Your task to perform on an android device: change the clock display to digital Image 0: 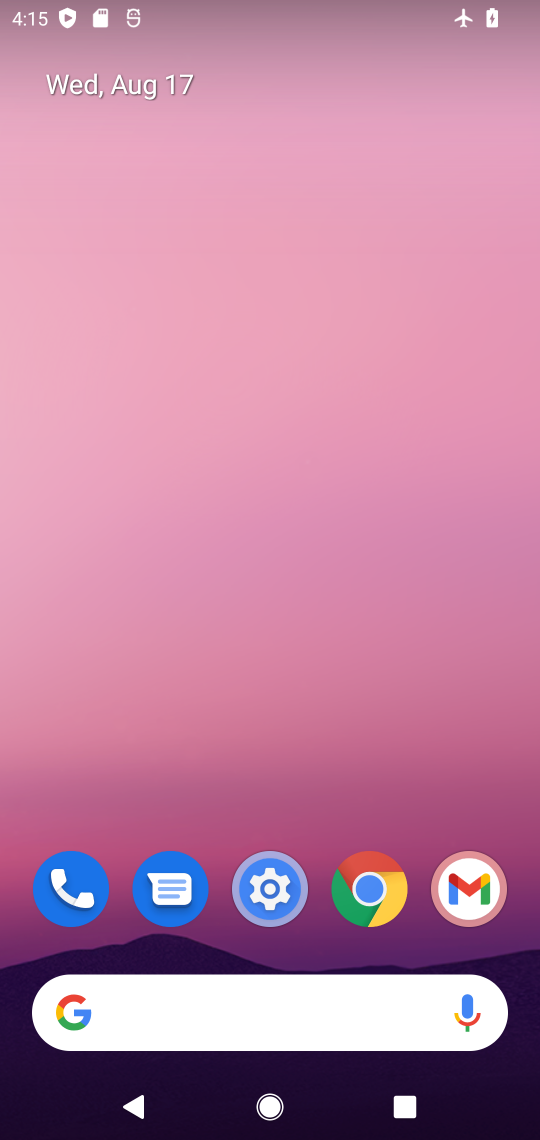
Step 0: drag from (283, 807) to (219, 158)
Your task to perform on an android device: change the clock display to digital Image 1: 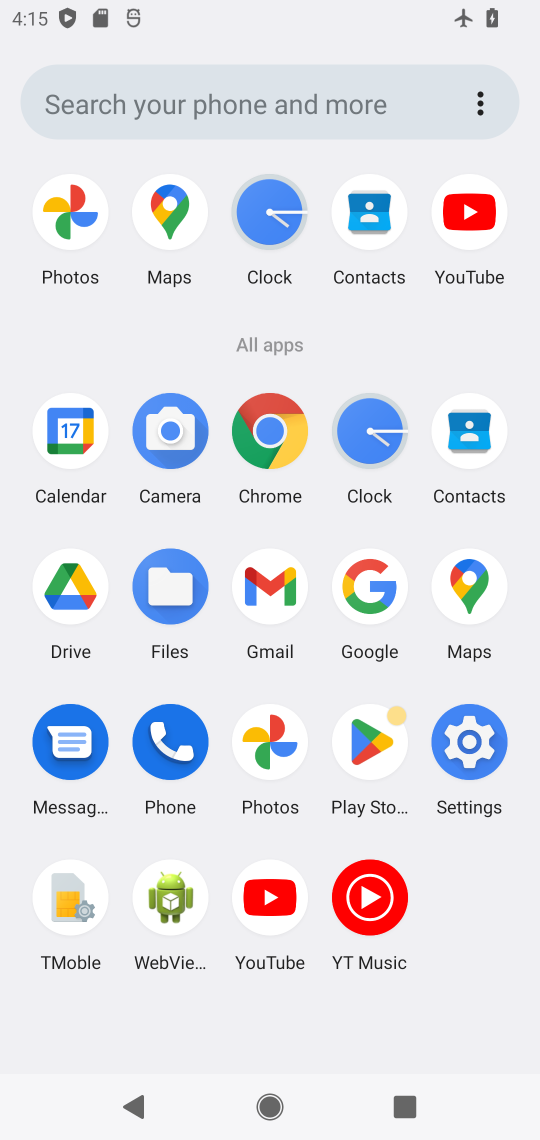
Step 1: click (378, 433)
Your task to perform on an android device: change the clock display to digital Image 2: 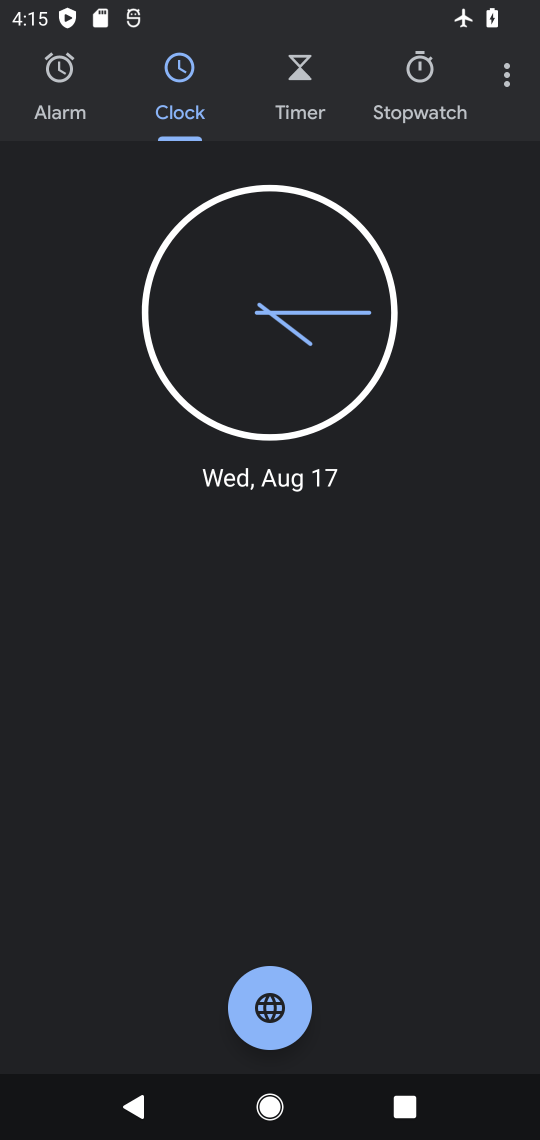
Step 2: click (502, 74)
Your task to perform on an android device: change the clock display to digital Image 3: 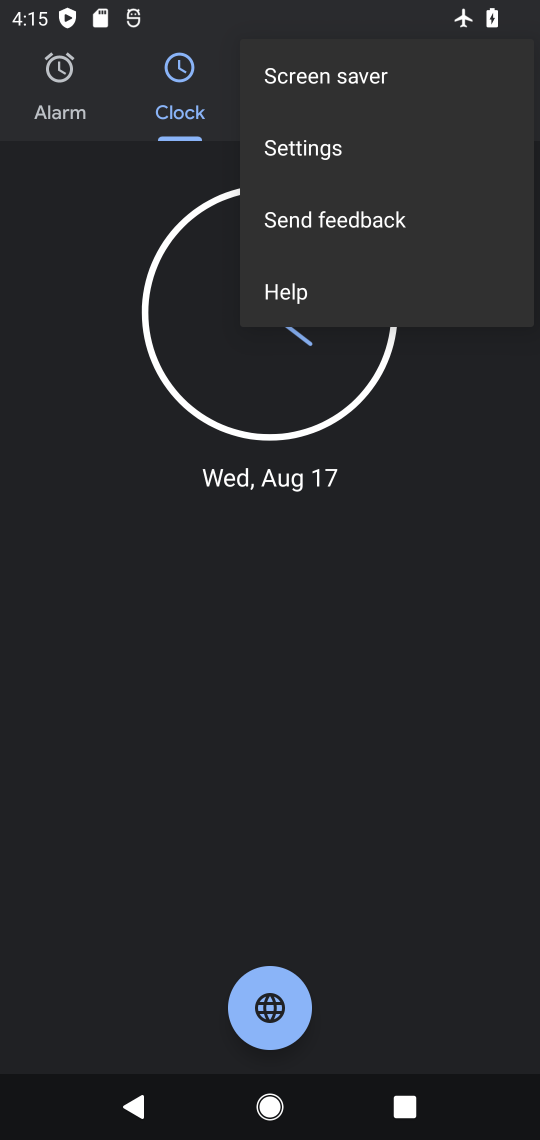
Step 3: click (326, 138)
Your task to perform on an android device: change the clock display to digital Image 4: 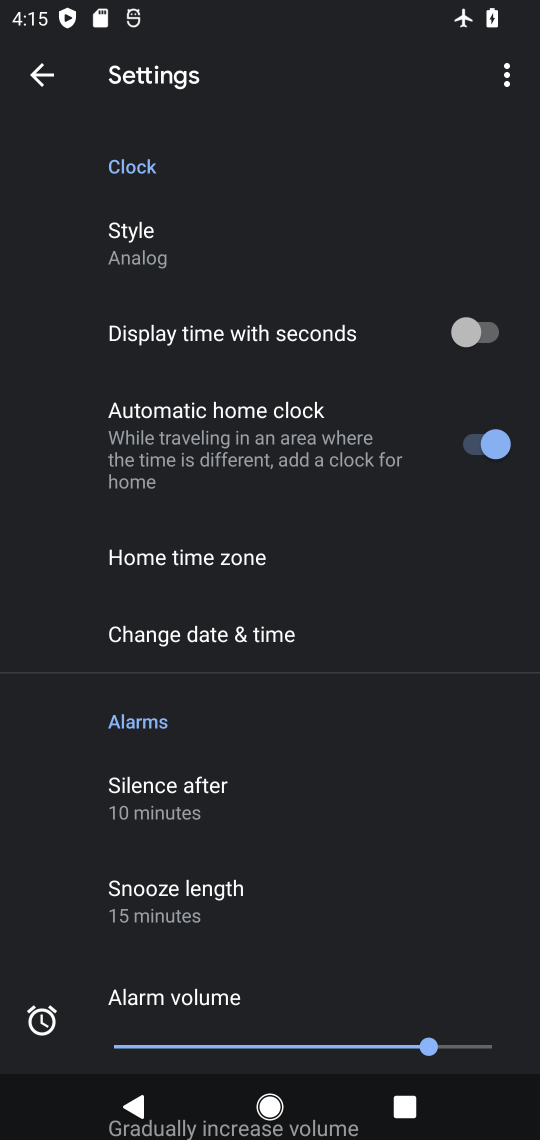
Step 4: click (131, 239)
Your task to perform on an android device: change the clock display to digital Image 5: 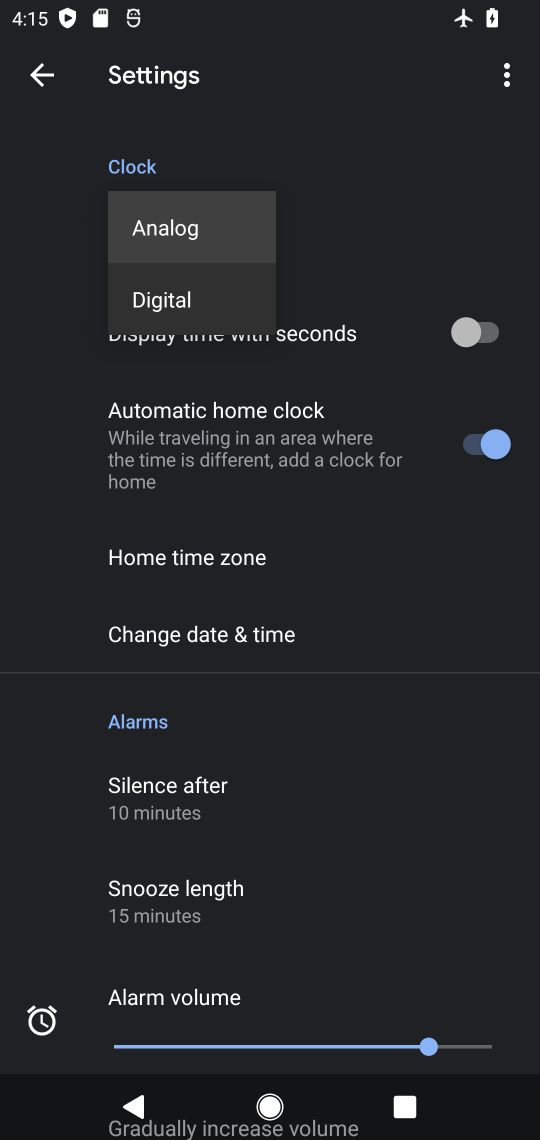
Step 5: click (154, 300)
Your task to perform on an android device: change the clock display to digital Image 6: 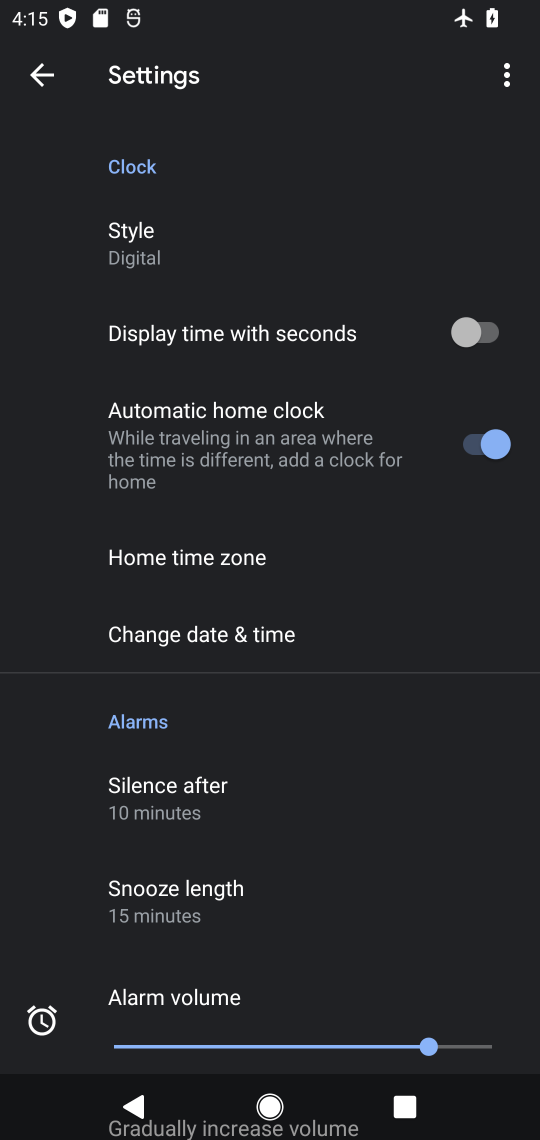
Step 6: task complete